Your task to perform on an android device: see tabs open on other devices in the chrome app Image 0: 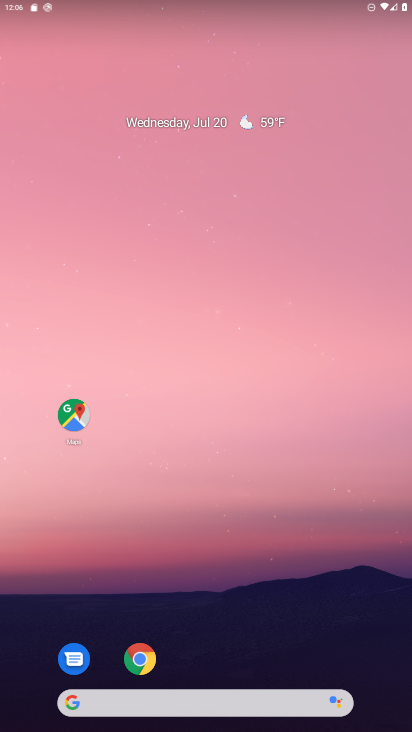
Step 0: drag from (300, 572) to (271, 155)
Your task to perform on an android device: see tabs open on other devices in the chrome app Image 1: 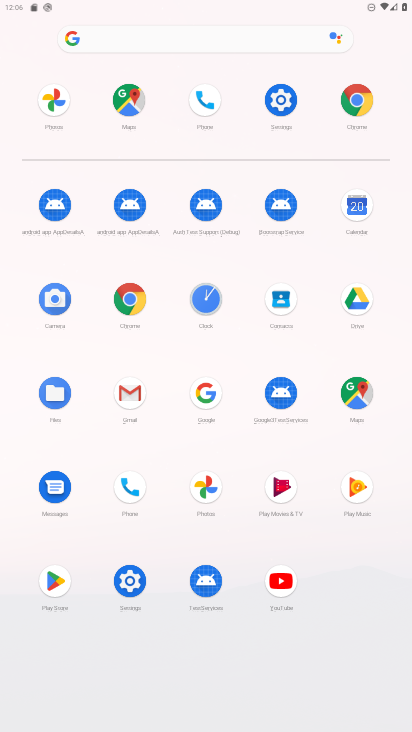
Step 1: click (131, 291)
Your task to perform on an android device: see tabs open on other devices in the chrome app Image 2: 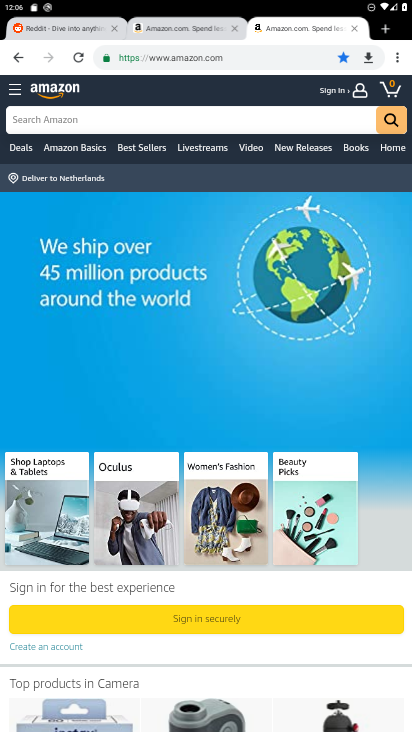
Step 2: task complete